Your task to perform on an android device: Go to Yahoo.com Image 0: 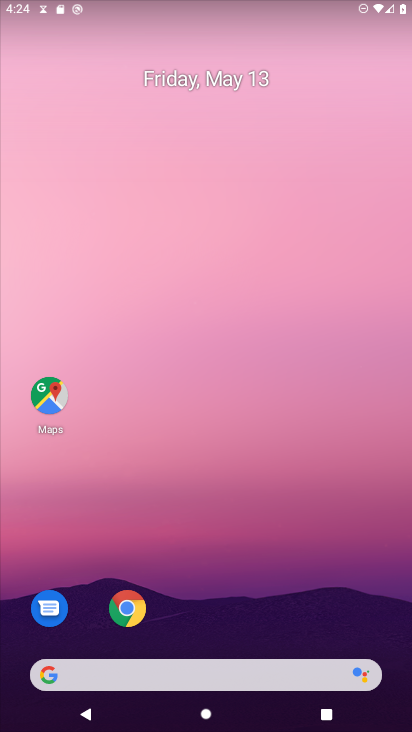
Step 0: drag from (296, 652) to (260, 8)
Your task to perform on an android device: Go to Yahoo.com Image 1: 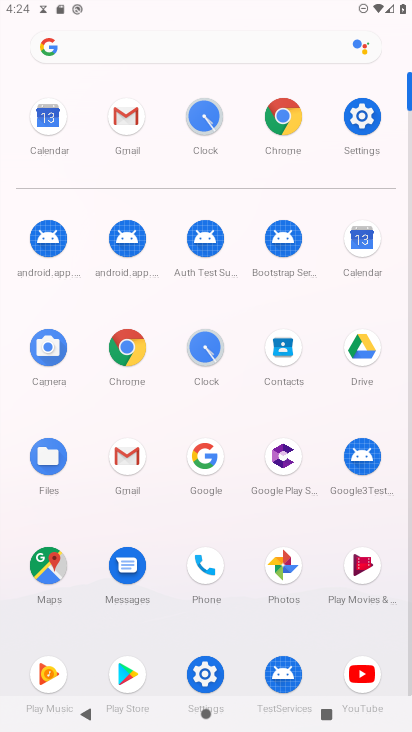
Step 1: click (131, 349)
Your task to perform on an android device: Go to Yahoo.com Image 2: 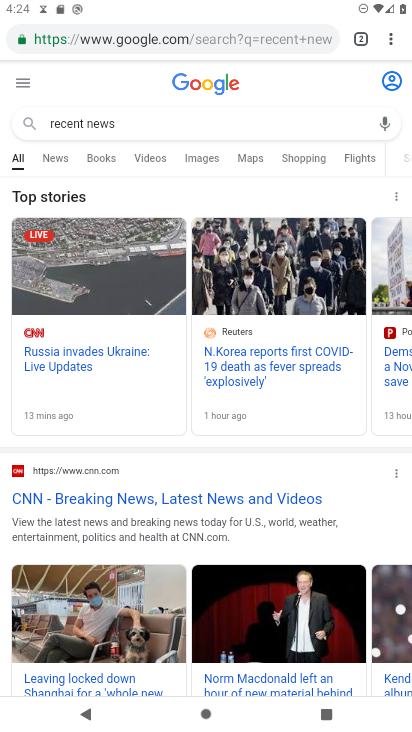
Step 2: click (298, 39)
Your task to perform on an android device: Go to Yahoo.com Image 3: 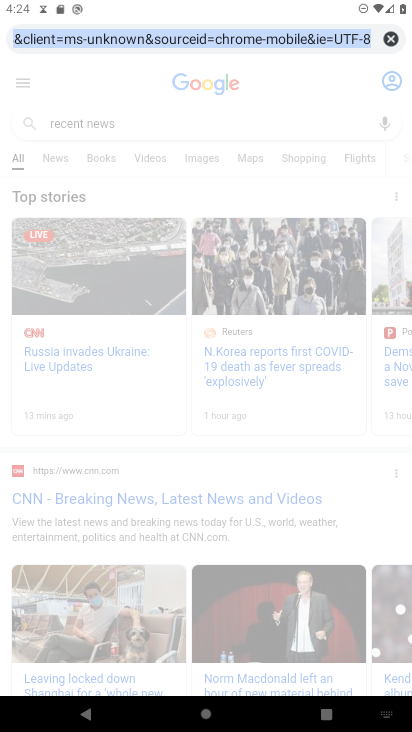
Step 3: click (385, 36)
Your task to perform on an android device: Go to Yahoo.com Image 4: 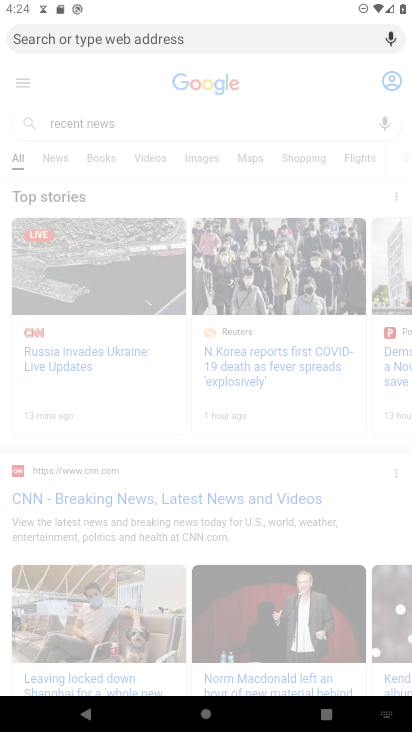
Step 4: type "yahoo.com"
Your task to perform on an android device: Go to Yahoo.com Image 5: 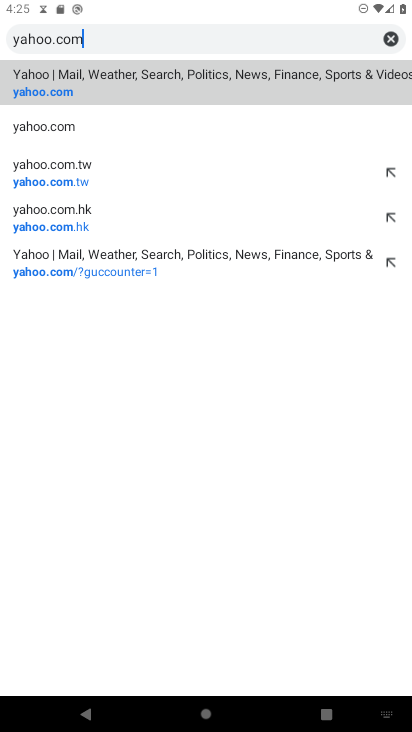
Step 5: click (191, 87)
Your task to perform on an android device: Go to Yahoo.com Image 6: 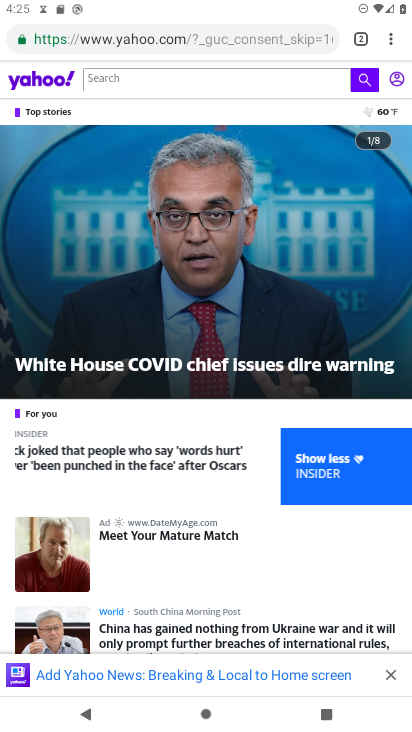
Step 6: task complete